Your task to perform on an android device: Go to Yahoo.com Image 0: 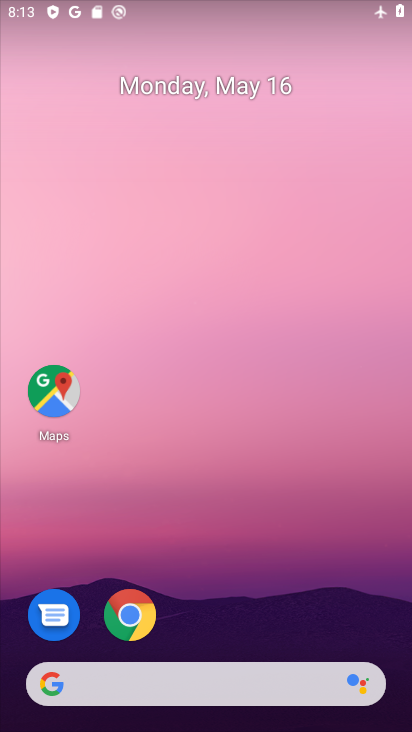
Step 0: drag from (299, 1) to (345, 638)
Your task to perform on an android device: Go to Yahoo.com Image 1: 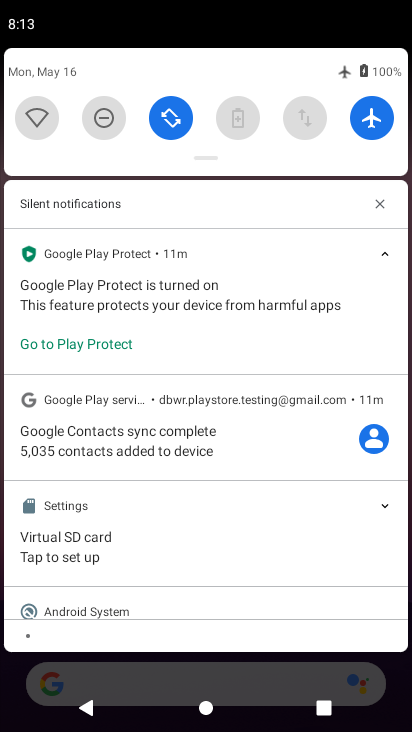
Step 1: drag from (231, 145) to (250, 573)
Your task to perform on an android device: Go to Yahoo.com Image 2: 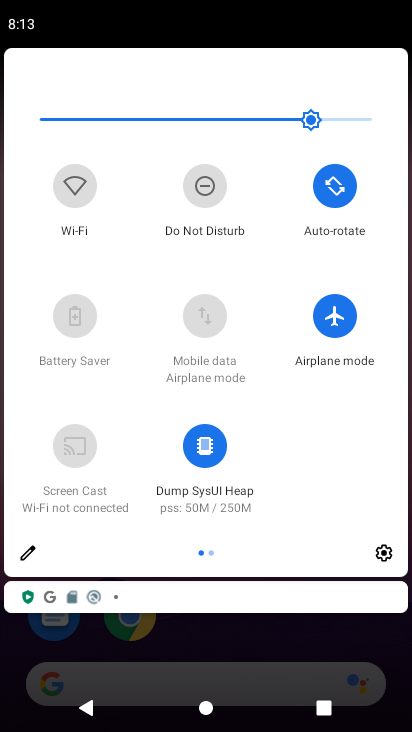
Step 2: click (338, 323)
Your task to perform on an android device: Go to Yahoo.com Image 3: 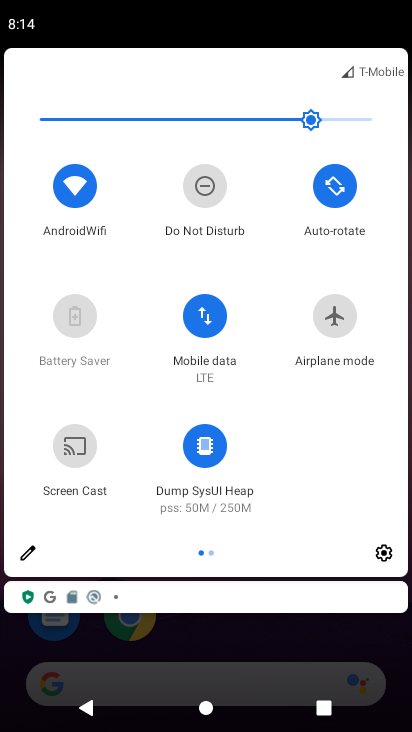
Step 3: press home button
Your task to perform on an android device: Go to Yahoo.com Image 4: 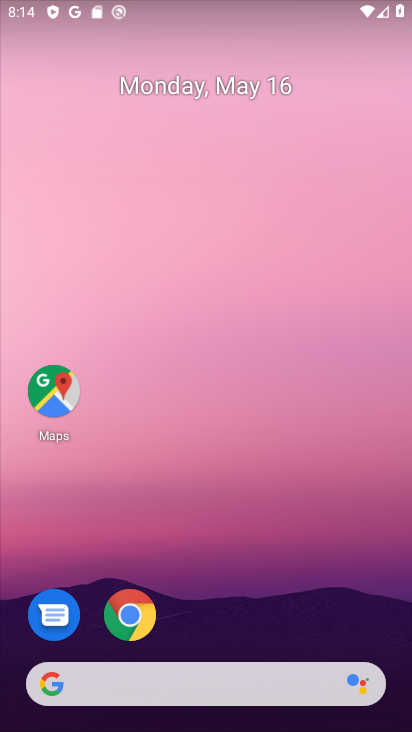
Step 4: drag from (15, 563) to (280, 119)
Your task to perform on an android device: Go to Yahoo.com Image 5: 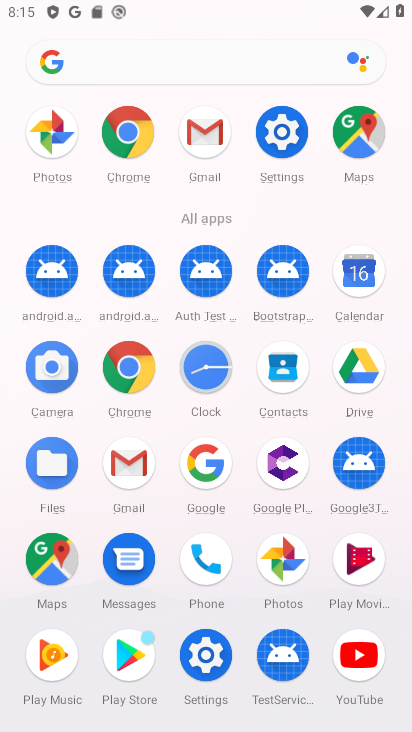
Step 5: click (138, 366)
Your task to perform on an android device: Go to Yahoo.com Image 6: 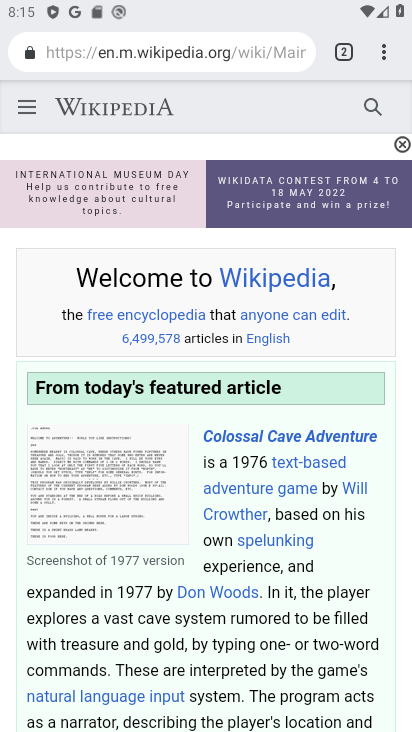
Step 6: press back button
Your task to perform on an android device: Go to Yahoo.com Image 7: 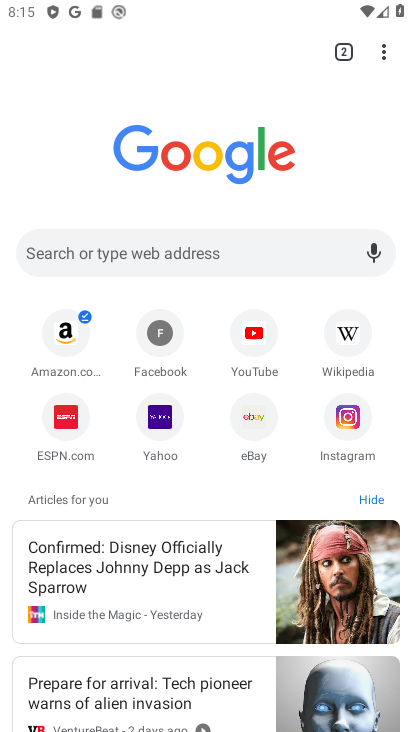
Step 7: click (169, 419)
Your task to perform on an android device: Go to Yahoo.com Image 8: 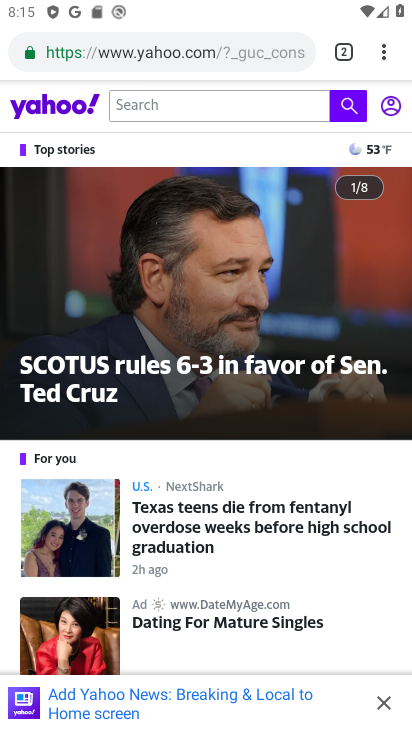
Step 8: task complete